Your task to perform on an android device: Go to Google Image 0: 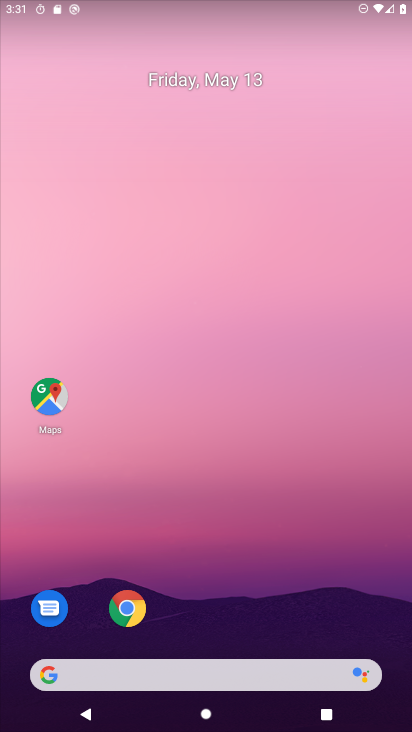
Step 0: press home button
Your task to perform on an android device: Go to Google Image 1: 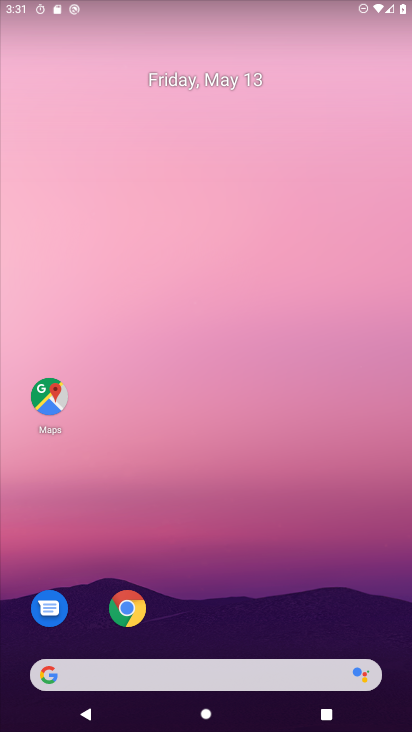
Step 1: drag from (266, 593) to (403, 217)
Your task to perform on an android device: Go to Google Image 2: 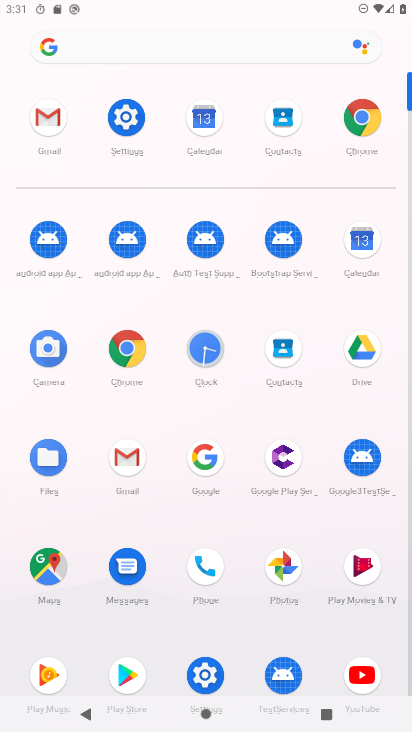
Step 2: click (211, 455)
Your task to perform on an android device: Go to Google Image 3: 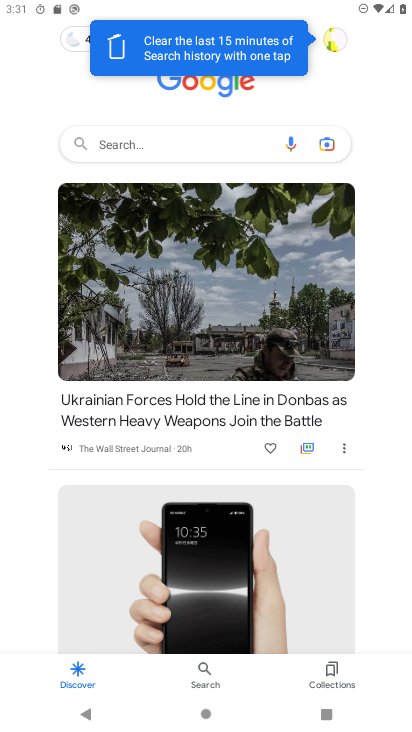
Step 3: task complete